Your task to perform on an android device: Check the news Image 0: 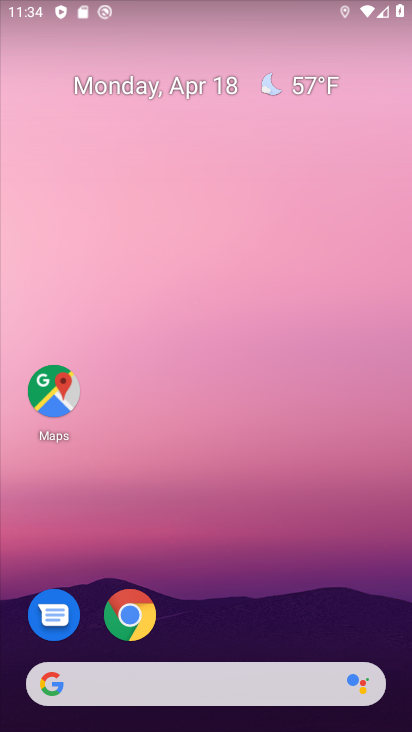
Step 0: drag from (220, 619) to (220, 90)
Your task to perform on an android device: Check the news Image 1: 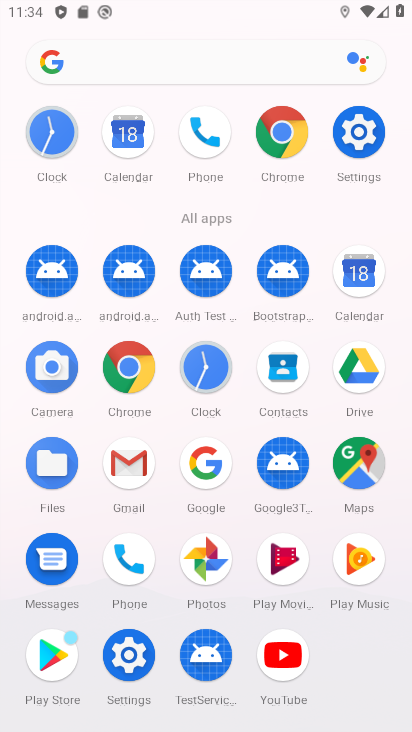
Step 1: click (214, 477)
Your task to perform on an android device: Check the news Image 2: 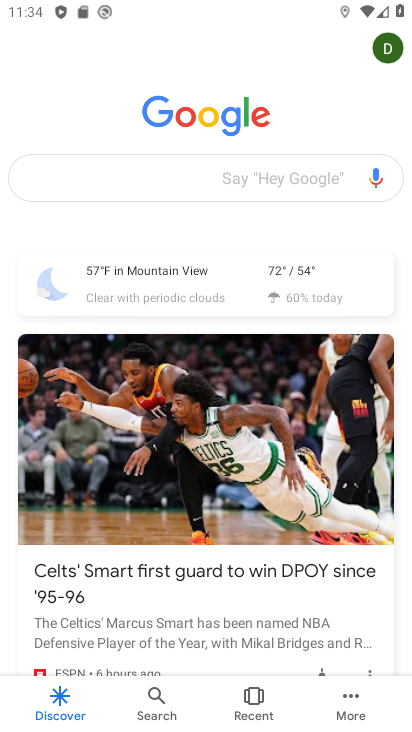
Step 2: task complete